Your task to perform on an android device: Go to display settings Image 0: 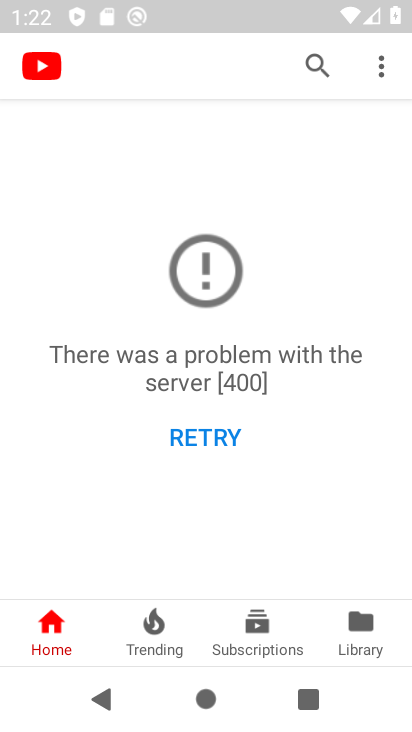
Step 0: press back button
Your task to perform on an android device: Go to display settings Image 1: 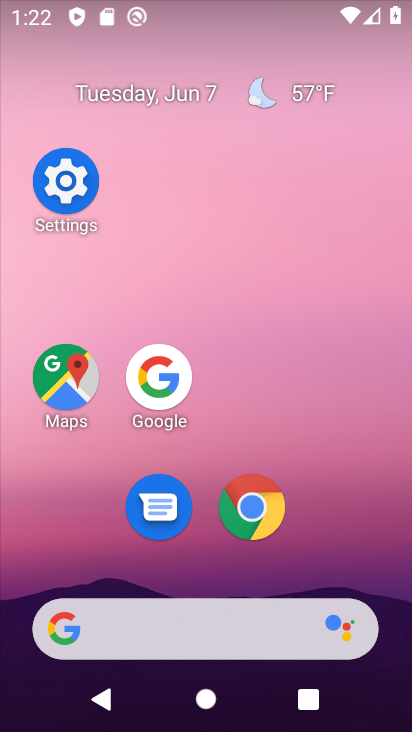
Step 1: click (80, 198)
Your task to perform on an android device: Go to display settings Image 2: 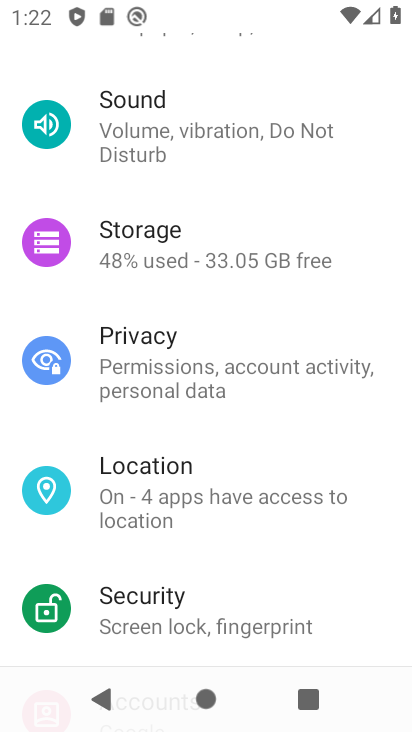
Step 2: drag from (294, 238) to (291, 489)
Your task to perform on an android device: Go to display settings Image 3: 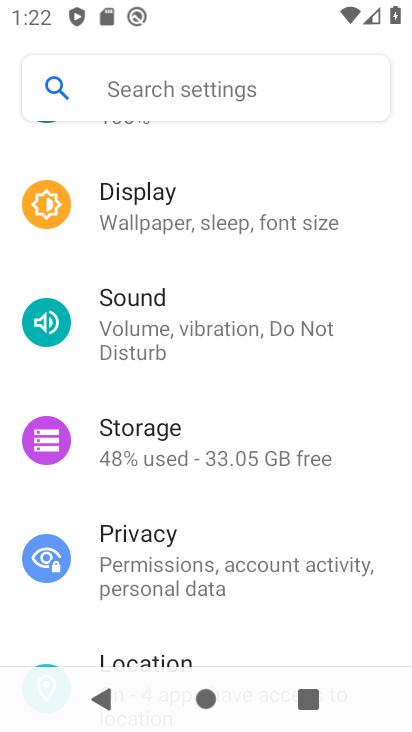
Step 3: click (285, 220)
Your task to perform on an android device: Go to display settings Image 4: 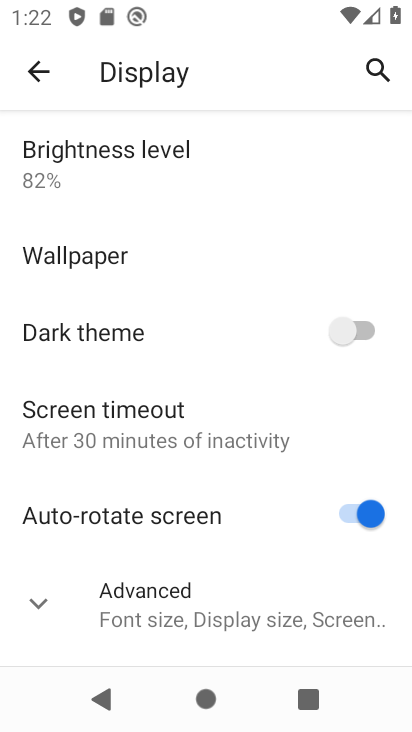
Step 4: task complete